Your task to perform on an android device: Open Chrome and go to the settings page Image 0: 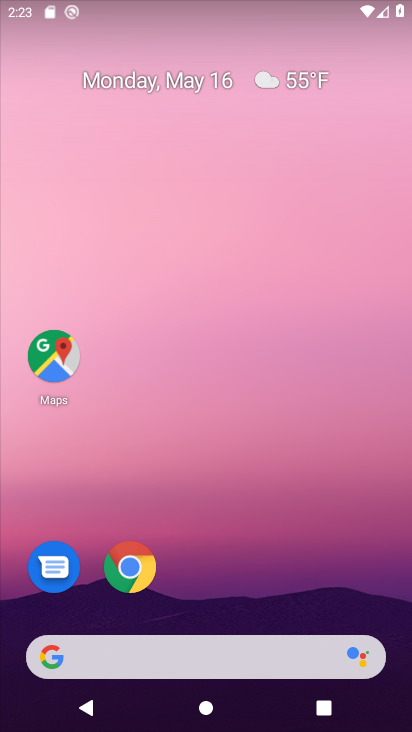
Step 0: click (149, 558)
Your task to perform on an android device: Open Chrome and go to the settings page Image 1: 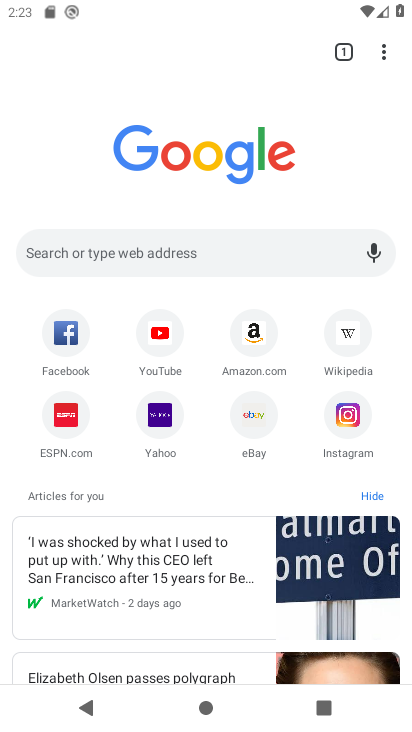
Step 1: click (390, 55)
Your task to perform on an android device: Open Chrome and go to the settings page Image 2: 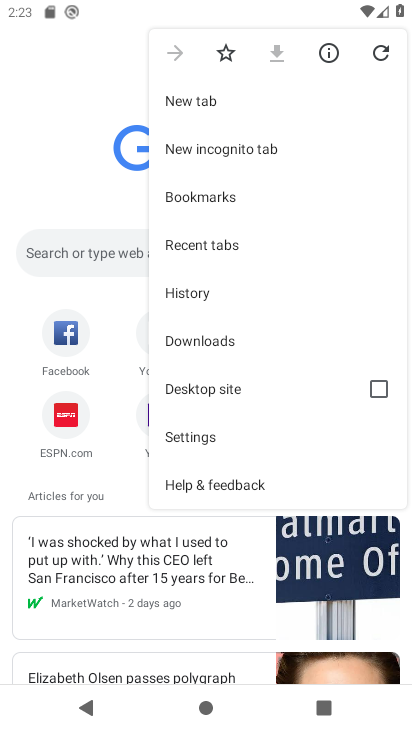
Step 2: click (209, 437)
Your task to perform on an android device: Open Chrome and go to the settings page Image 3: 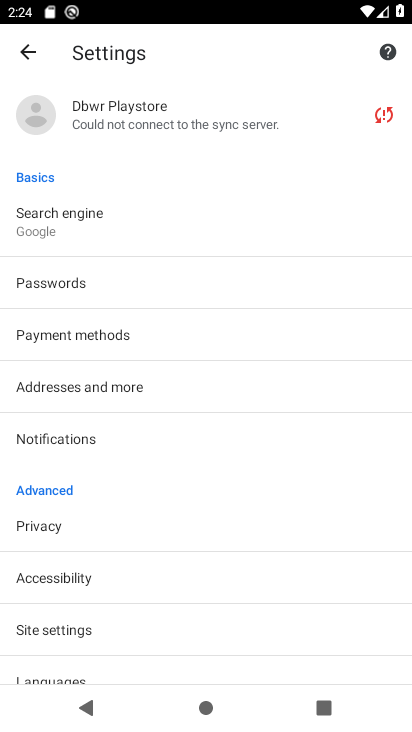
Step 3: task complete